Your task to perform on an android device: Go to ESPN.com Image 0: 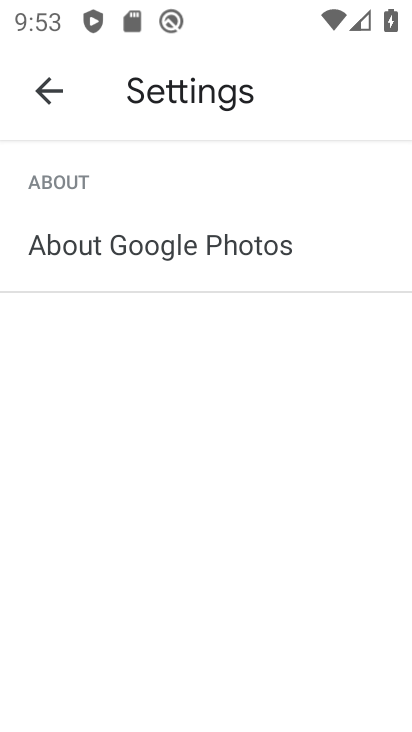
Step 0: press home button
Your task to perform on an android device: Go to ESPN.com Image 1: 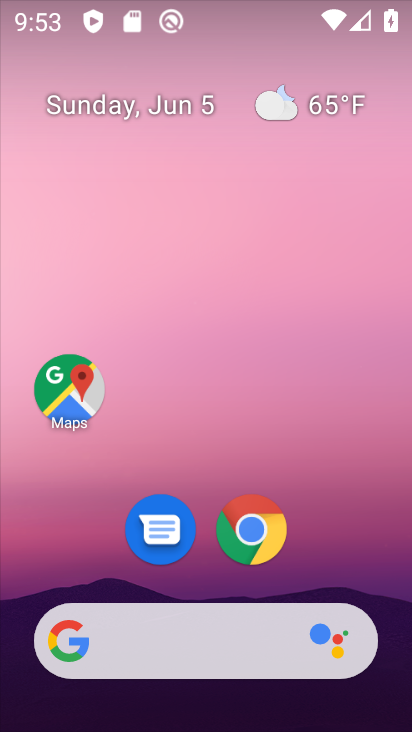
Step 1: click (202, 652)
Your task to perform on an android device: Go to ESPN.com Image 2: 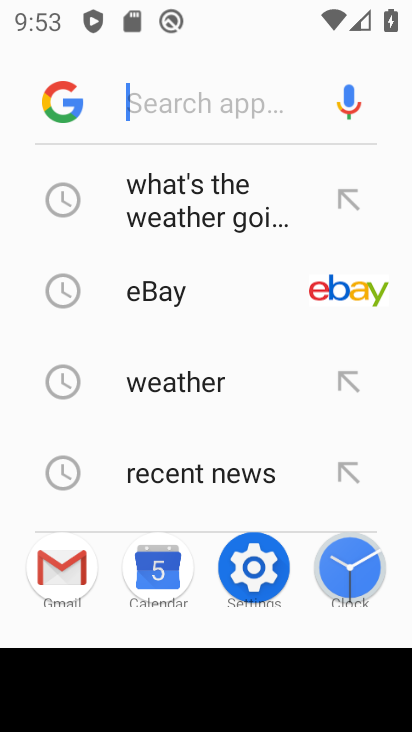
Step 2: type "espn.com"
Your task to perform on an android device: Go to ESPN.com Image 3: 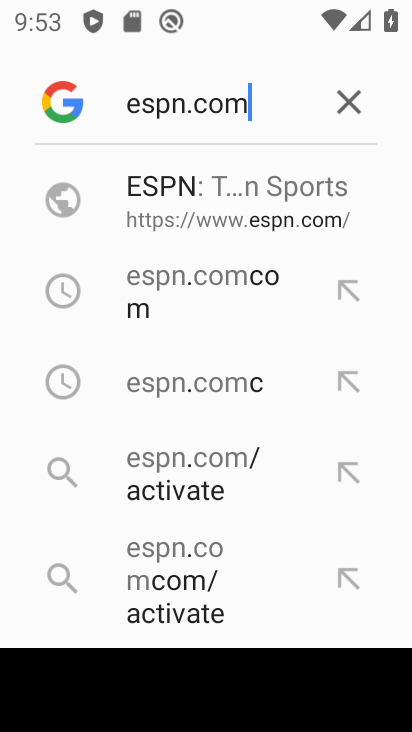
Step 3: click (176, 193)
Your task to perform on an android device: Go to ESPN.com Image 4: 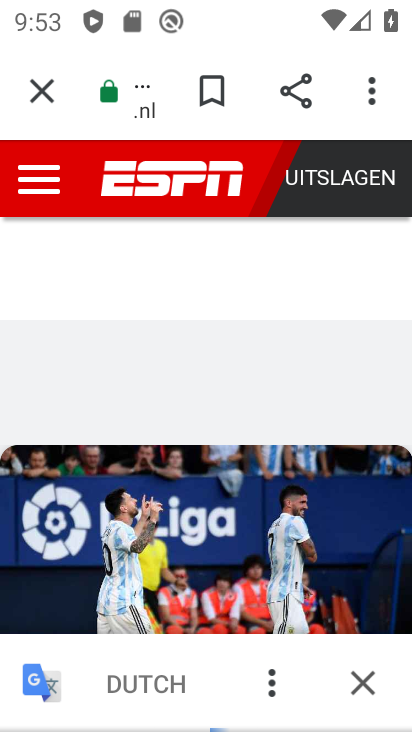
Step 4: task complete